Your task to perform on an android device: turn pop-ups off in chrome Image 0: 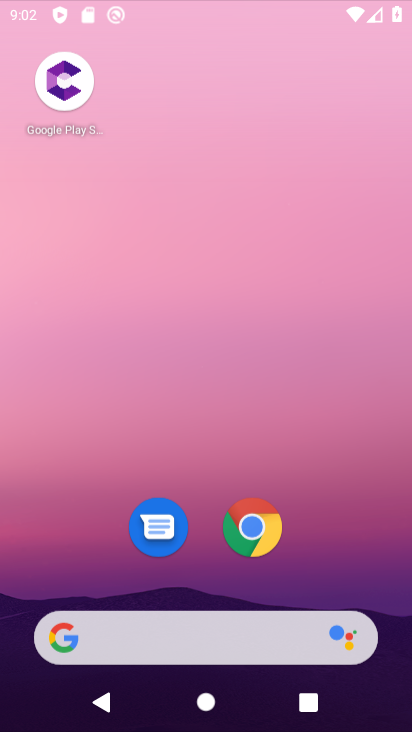
Step 0: click (249, 520)
Your task to perform on an android device: turn pop-ups off in chrome Image 1: 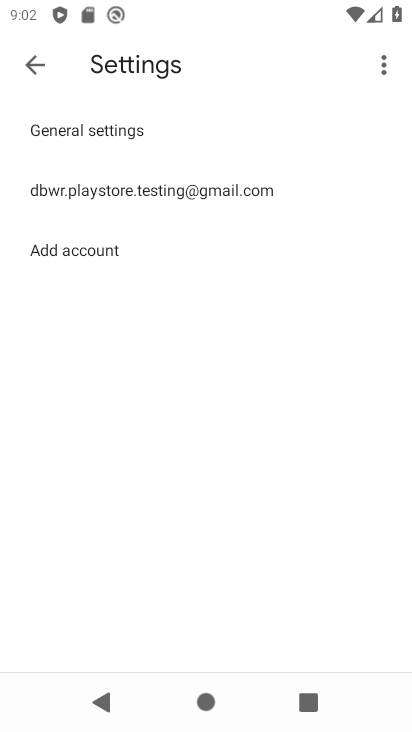
Step 1: press home button
Your task to perform on an android device: turn pop-ups off in chrome Image 2: 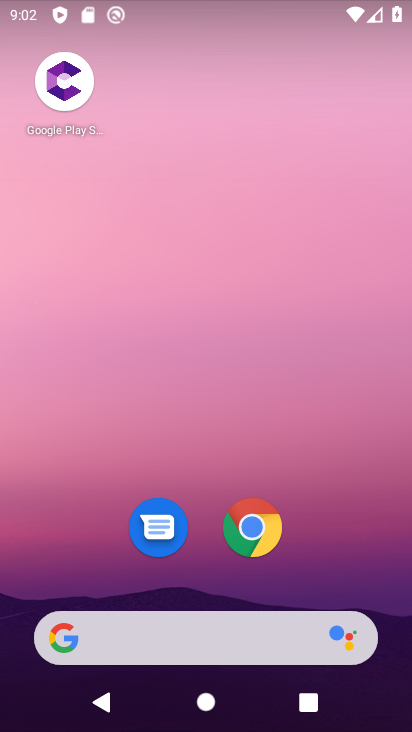
Step 2: click (250, 518)
Your task to perform on an android device: turn pop-ups off in chrome Image 3: 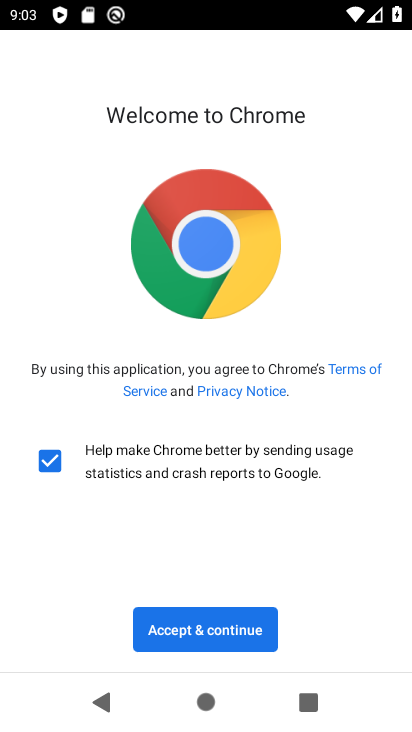
Step 3: click (227, 634)
Your task to perform on an android device: turn pop-ups off in chrome Image 4: 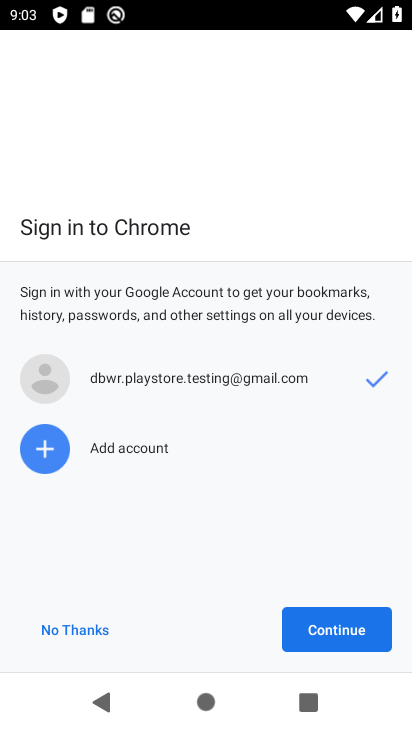
Step 4: click (307, 630)
Your task to perform on an android device: turn pop-ups off in chrome Image 5: 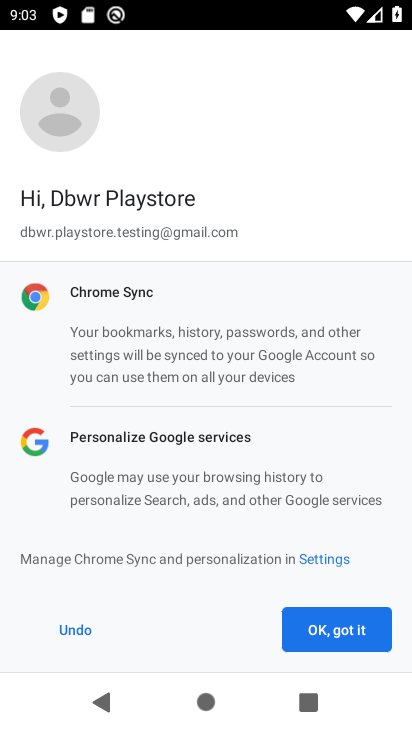
Step 5: click (323, 629)
Your task to perform on an android device: turn pop-ups off in chrome Image 6: 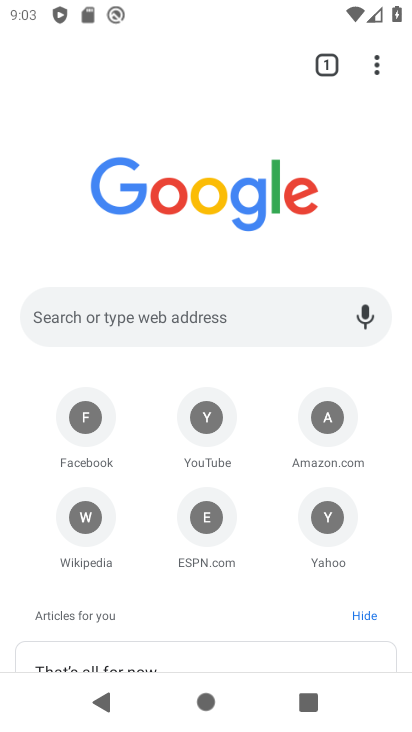
Step 6: click (377, 61)
Your task to perform on an android device: turn pop-ups off in chrome Image 7: 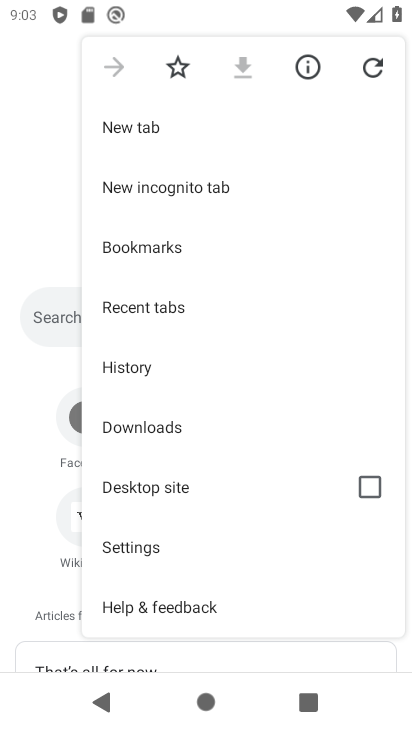
Step 7: click (135, 549)
Your task to perform on an android device: turn pop-ups off in chrome Image 8: 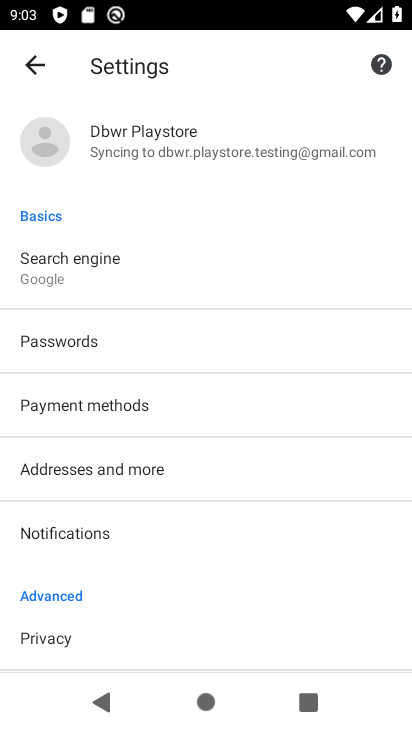
Step 8: drag from (230, 544) to (169, 293)
Your task to perform on an android device: turn pop-ups off in chrome Image 9: 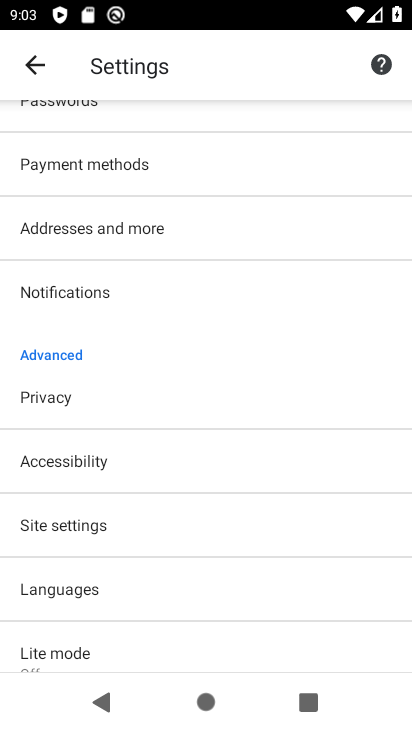
Step 9: click (75, 523)
Your task to perform on an android device: turn pop-ups off in chrome Image 10: 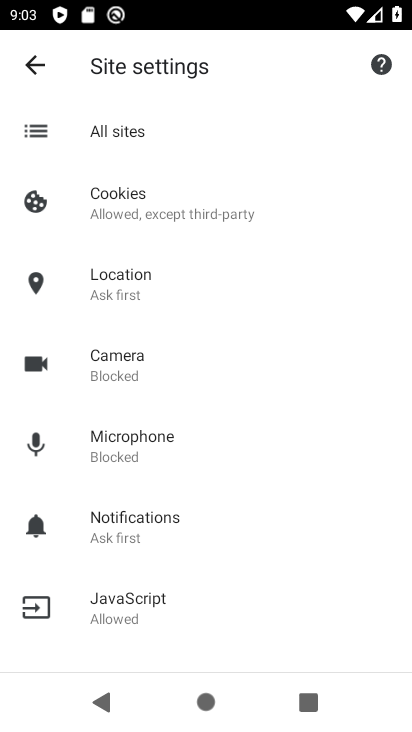
Step 10: drag from (242, 500) to (199, 216)
Your task to perform on an android device: turn pop-ups off in chrome Image 11: 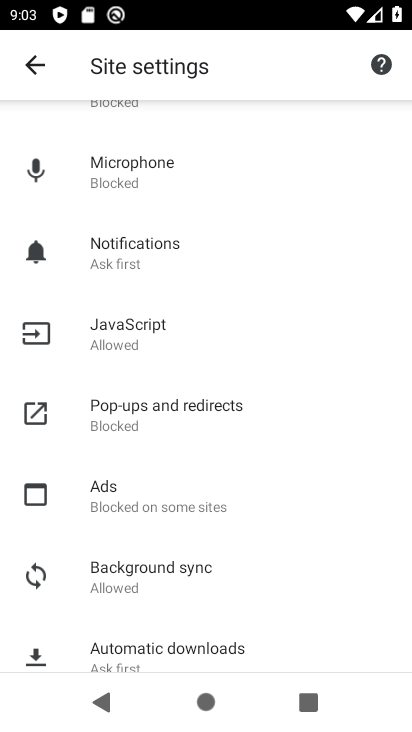
Step 11: click (144, 407)
Your task to perform on an android device: turn pop-ups off in chrome Image 12: 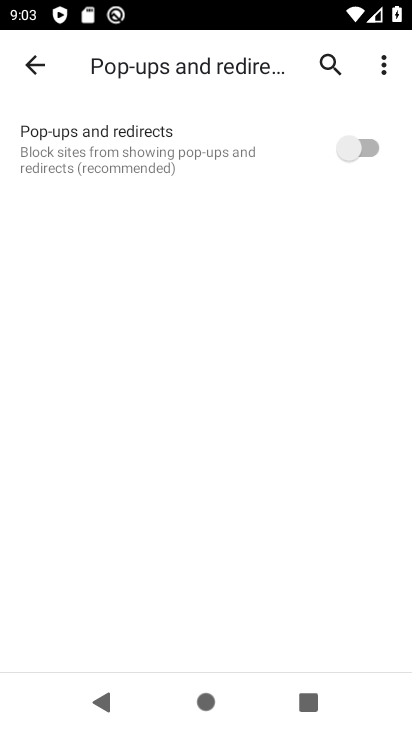
Step 12: task complete